Your task to perform on an android device: turn notification dots off Image 0: 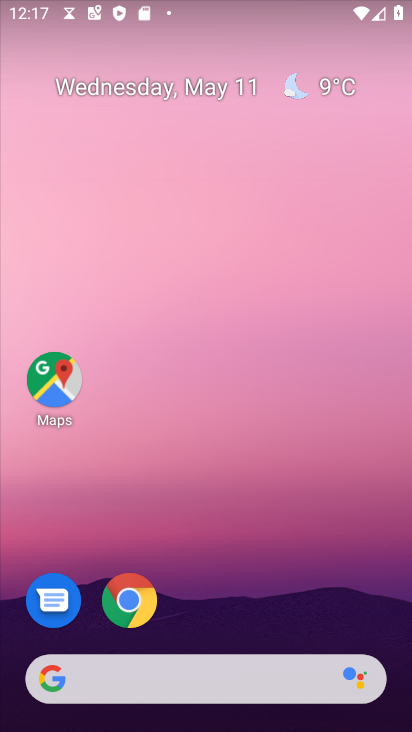
Step 0: drag from (261, 565) to (258, 102)
Your task to perform on an android device: turn notification dots off Image 1: 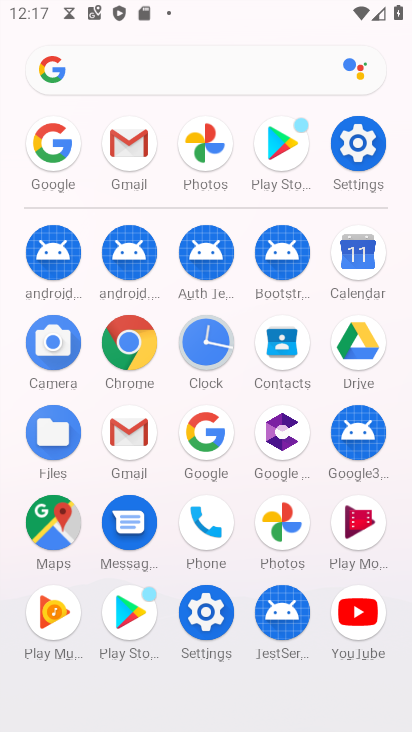
Step 1: click (356, 141)
Your task to perform on an android device: turn notification dots off Image 2: 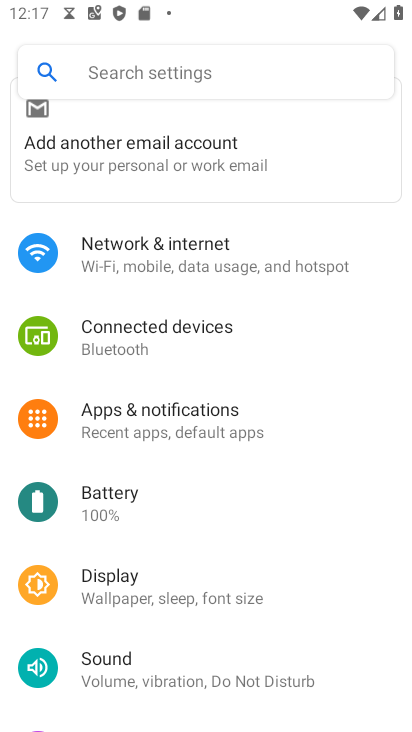
Step 2: click (190, 431)
Your task to perform on an android device: turn notification dots off Image 3: 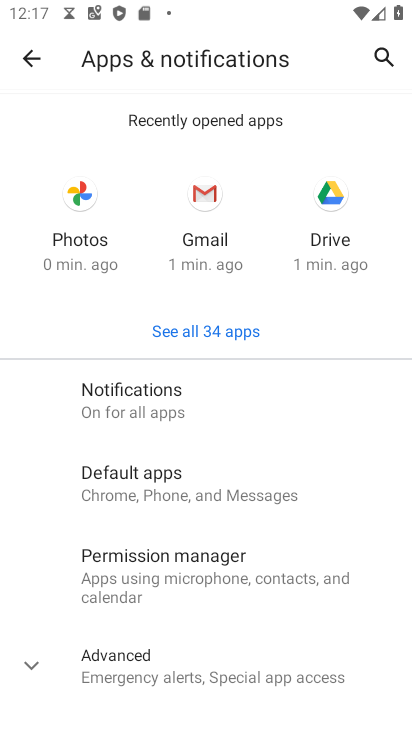
Step 3: click (180, 419)
Your task to perform on an android device: turn notification dots off Image 4: 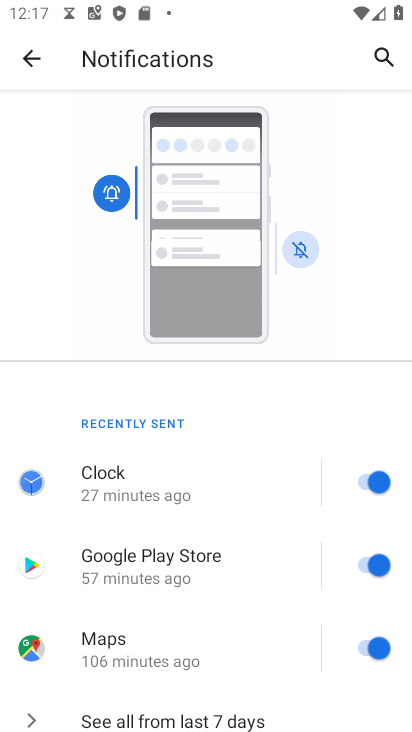
Step 4: drag from (219, 604) to (234, 169)
Your task to perform on an android device: turn notification dots off Image 5: 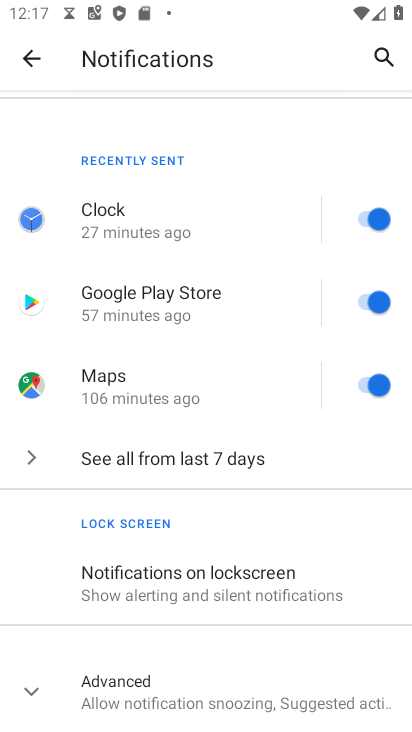
Step 5: click (203, 578)
Your task to perform on an android device: turn notification dots off Image 6: 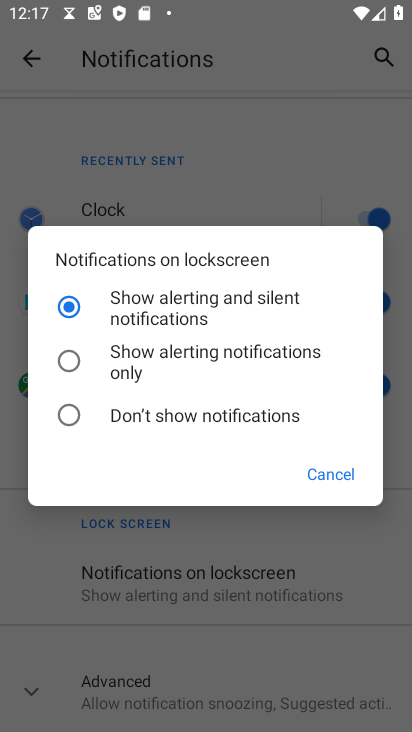
Step 6: click (320, 470)
Your task to perform on an android device: turn notification dots off Image 7: 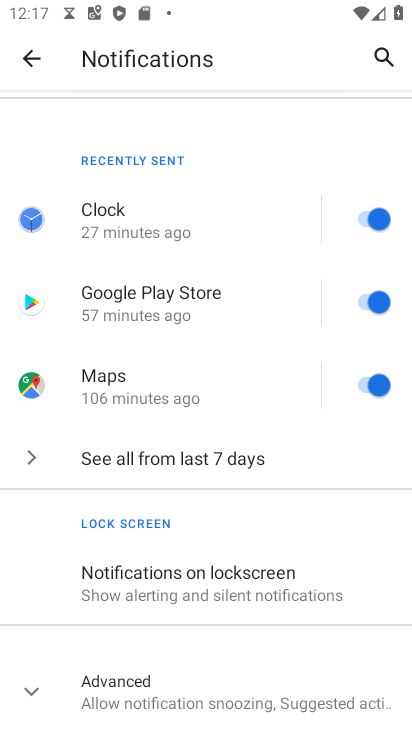
Step 7: click (200, 687)
Your task to perform on an android device: turn notification dots off Image 8: 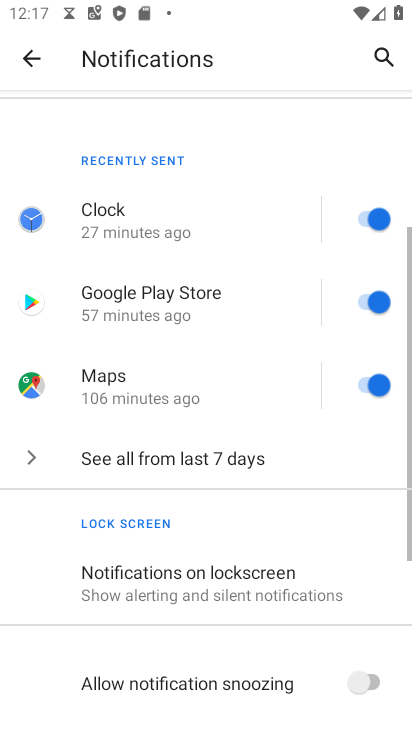
Step 8: drag from (211, 603) to (218, 174)
Your task to perform on an android device: turn notification dots off Image 9: 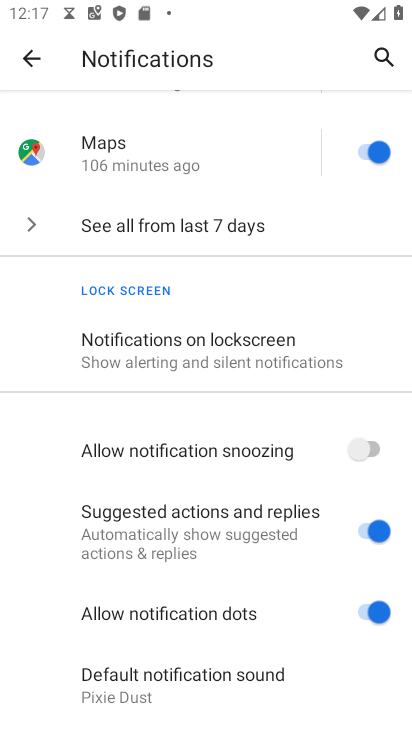
Step 9: click (378, 613)
Your task to perform on an android device: turn notification dots off Image 10: 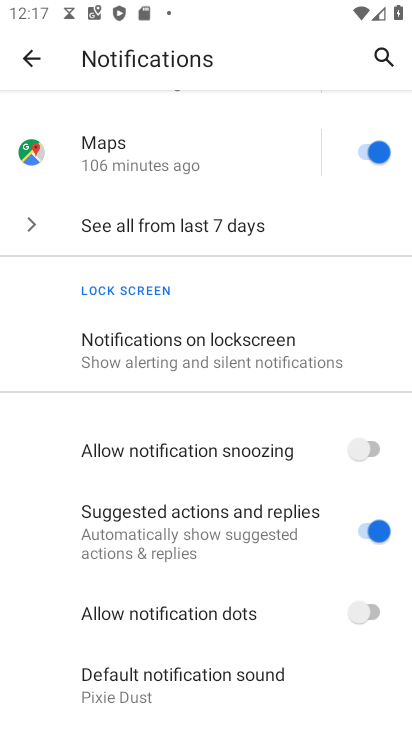
Step 10: task complete